Your task to perform on an android device: Open sound settings Image 0: 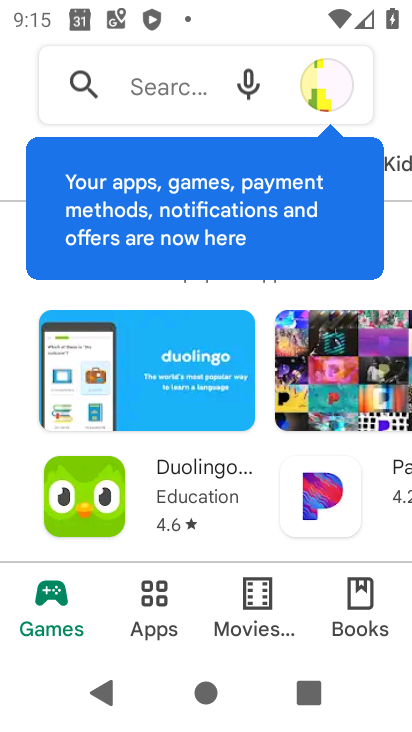
Step 0: press home button
Your task to perform on an android device: Open sound settings Image 1: 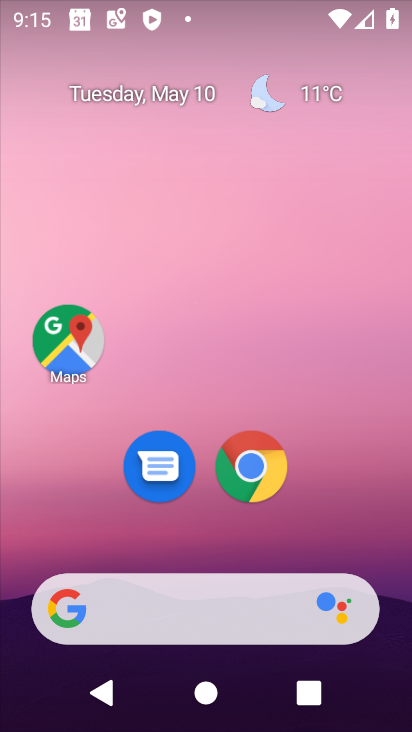
Step 1: drag from (320, 532) to (331, 16)
Your task to perform on an android device: Open sound settings Image 2: 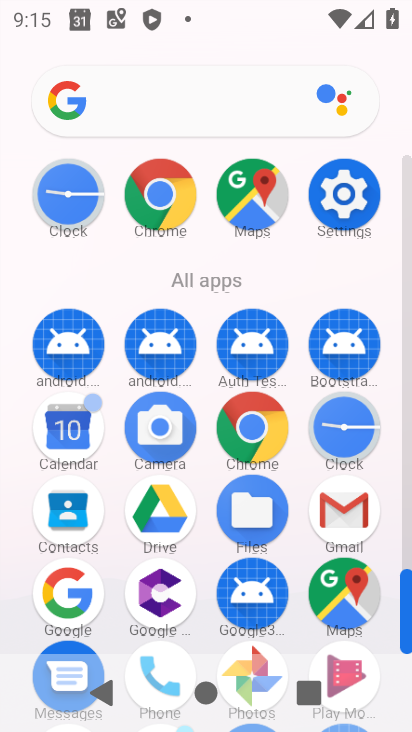
Step 2: click (363, 198)
Your task to perform on an android device: Open sound settings Image 3: 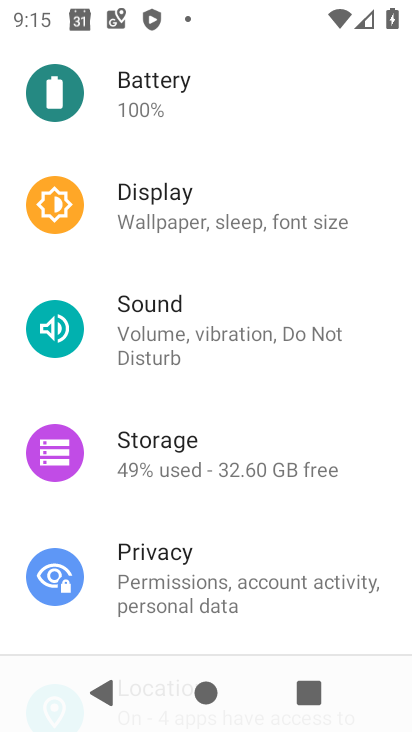
Step 3: click (143, 336)
Your task to perform on an android device: Open sound settings Image 4: 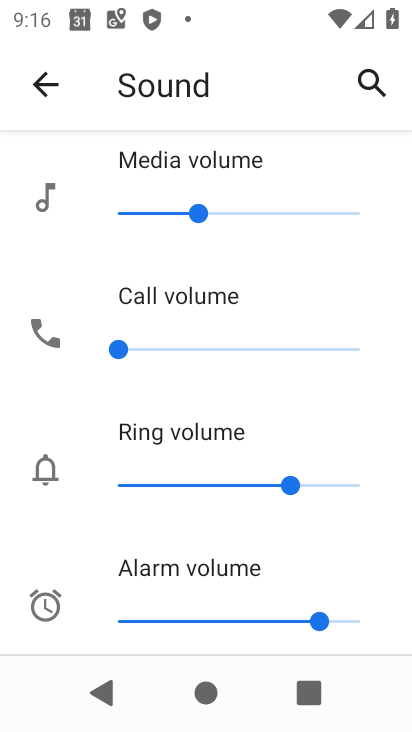
Step 4: task complete